Your task to perform on an android device: What's the weather? Image 0: 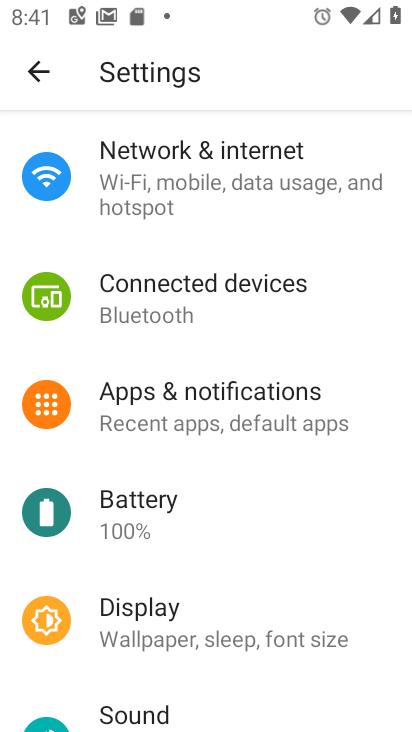
Step 0: press home button
Your task to perform on an android device: What's the weather? Image 1: 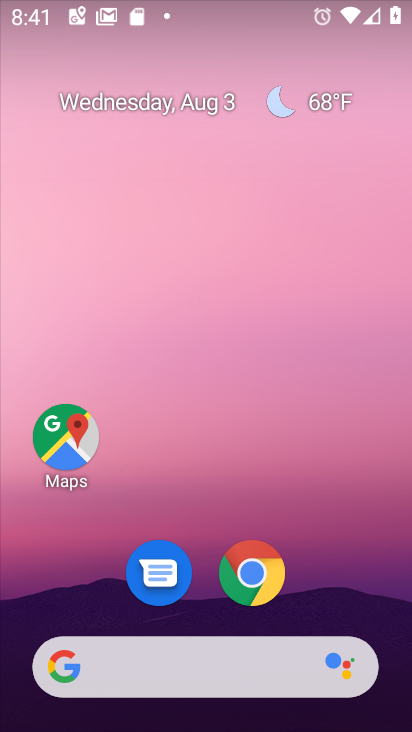
Step 1: click (132, 671)
Your task to perform on an android device: What's the weather? Image 2: 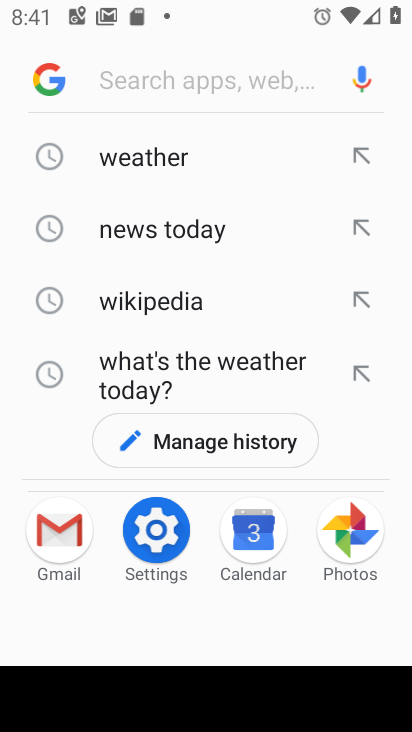
Step 2: click (139, 155)
Your task to perform on an android device: What's the weather? Image 3: 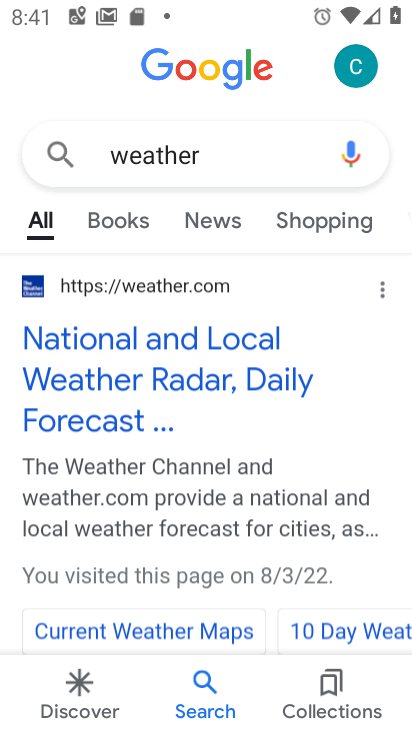
Step 3: click (118, 292)
Your task to perform on an android device: What's the weather? Image 4: 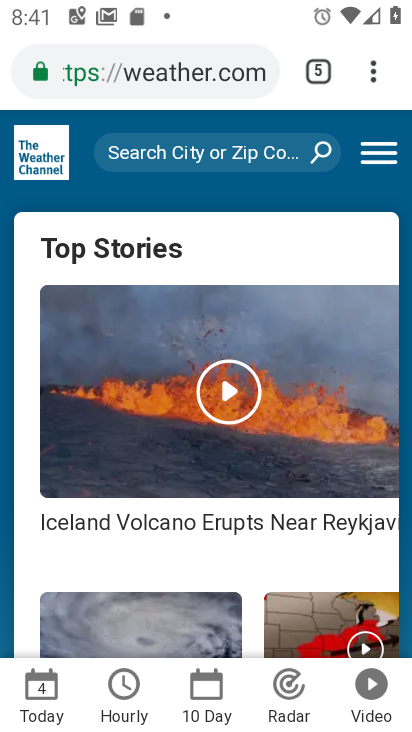
Step 4: click (45, 699)
Your task to perform on an android device: What's the weather? Image 5: 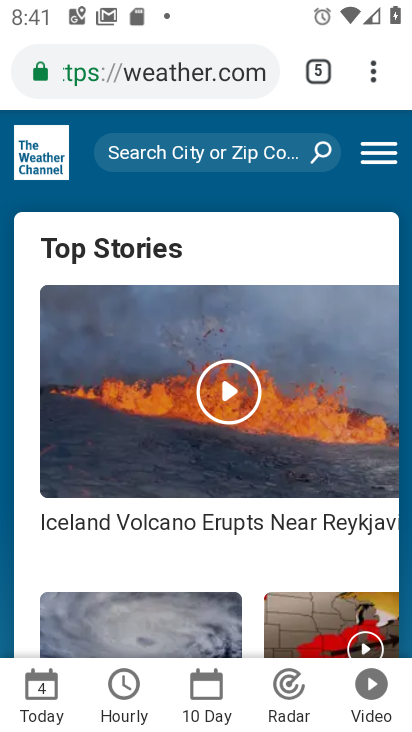
Step 5: click (41, 690)
Your task to perform on an android device: What's the weather? Image 6: 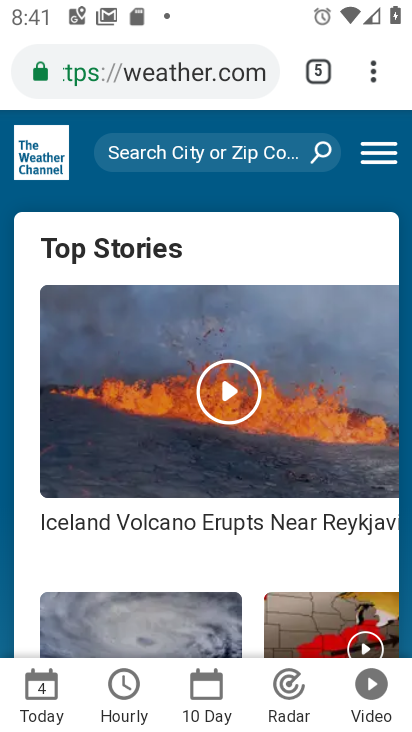
Step 6: click (43, 683)
Your task to perform on an android device: What's the weather? Image 7: 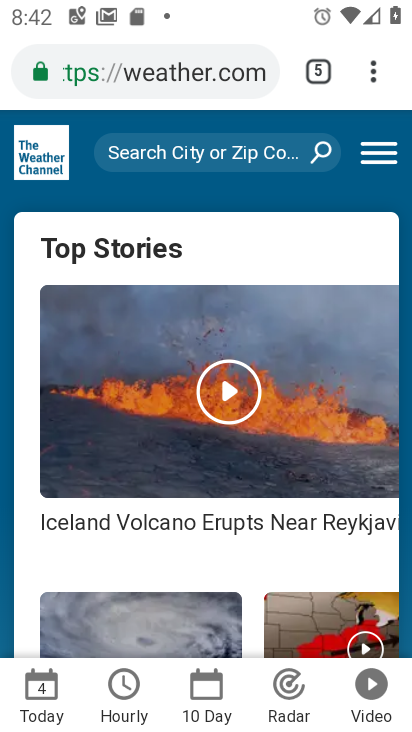
Step 7: click (206, 685)
Your task to perform on an android device: What's the weather? Image 8: 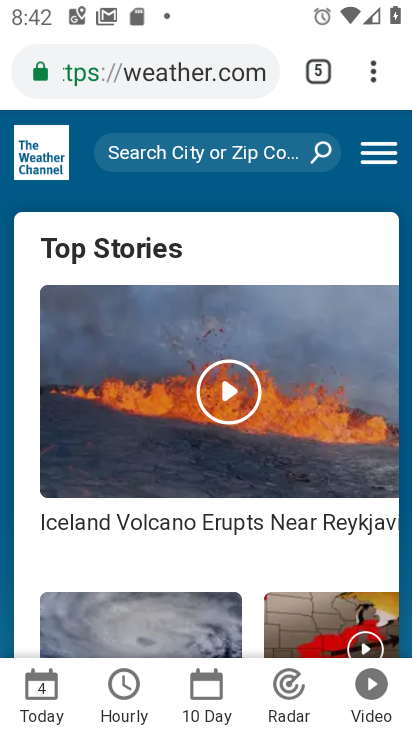
Step 8: drag from (207, 572) to (206, 279)
Your task to perform on an android device: What's the weather? Image 9: 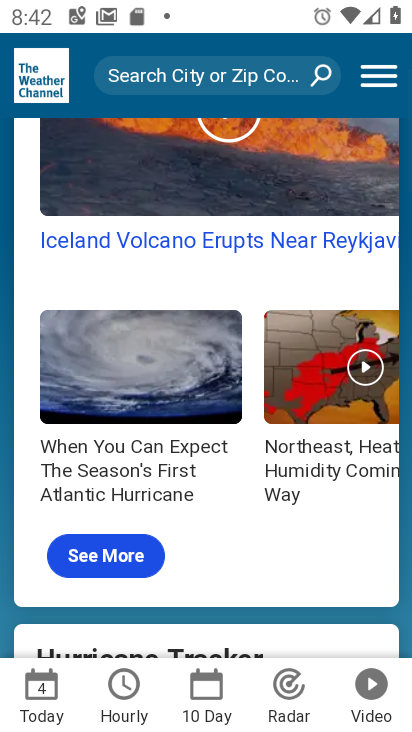
Step 9: drag from (172, 303) to (204, 569)
Your task to perform on an android device: What's the weather? Image 10: 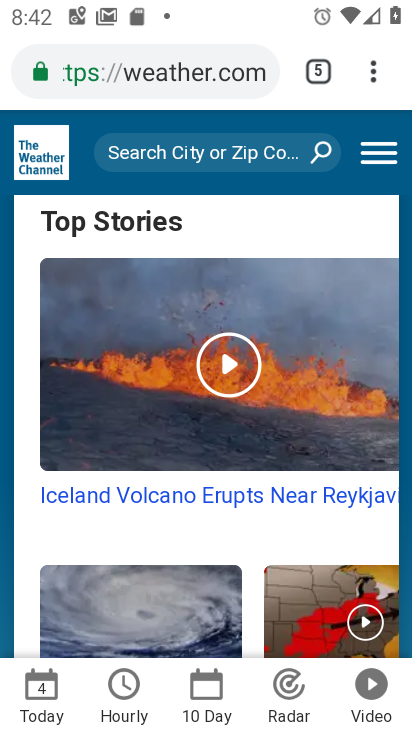
Step 10: click (48, 691)
Your task to perform on an android device: What's the weather? Image 11: 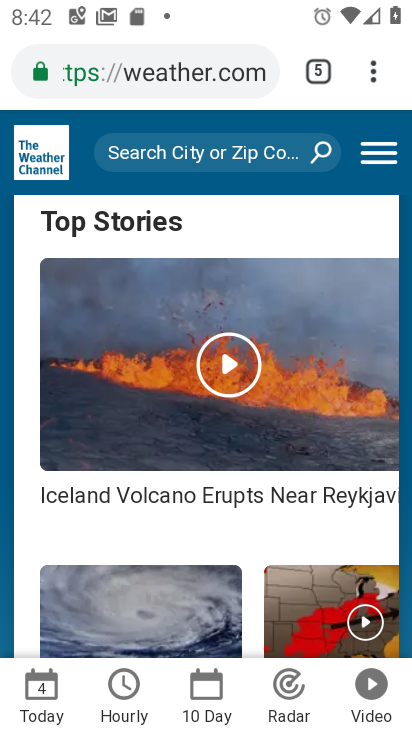
Step 11: drag from (171, 568) to (164, 406)
Your task to perform on an android device: What's the weather? Image 12: 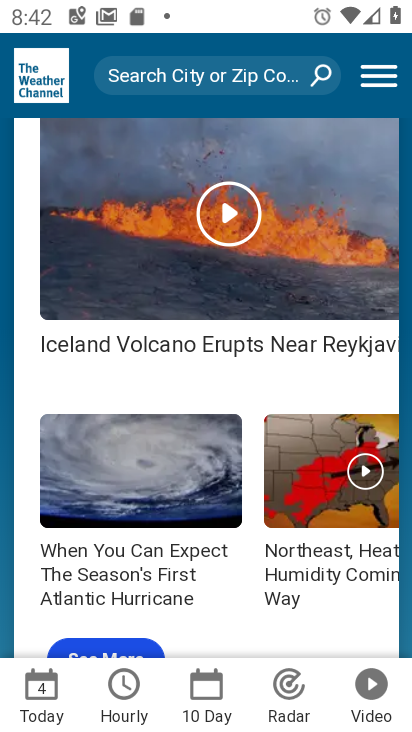
Step 12: click (125, 697)
Your task to perform on an android device: What's the weather? Image 13: 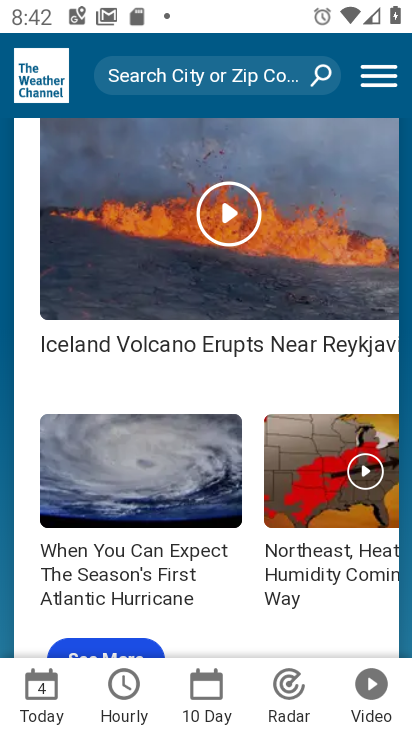
Step 13: task complete